Your task to perform on an android device: Open the stopwatch Image 0: 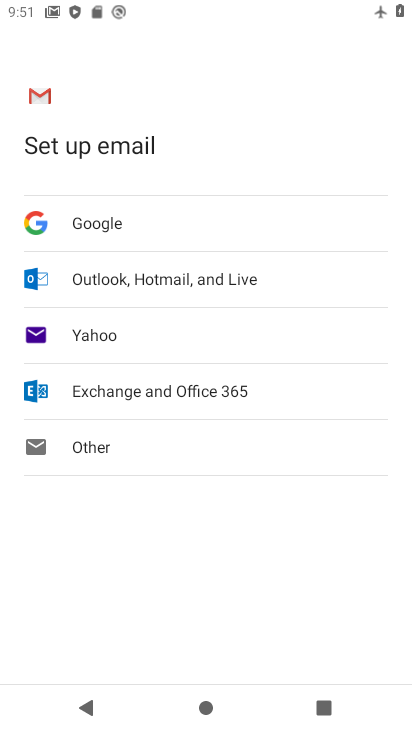
Step 0: press home button
Your task to perform on an android device: Open the stopwatch Image 1: 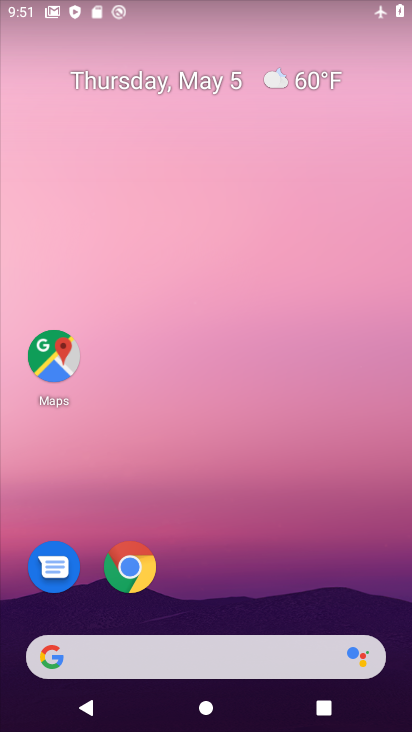
Step 1: drag from (358, 516) to (360, 149)
Your task to perform on an android device: Open the stopwatch Image 2: 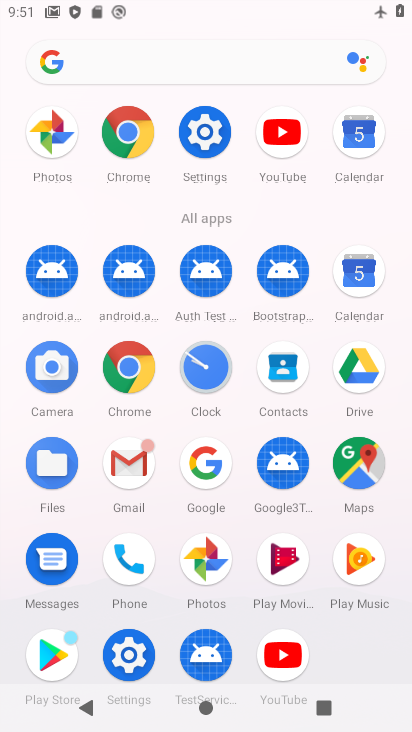
Step 2: click (218, 375)
Your task to perform on an android device: Open the stopwatch Image 3: 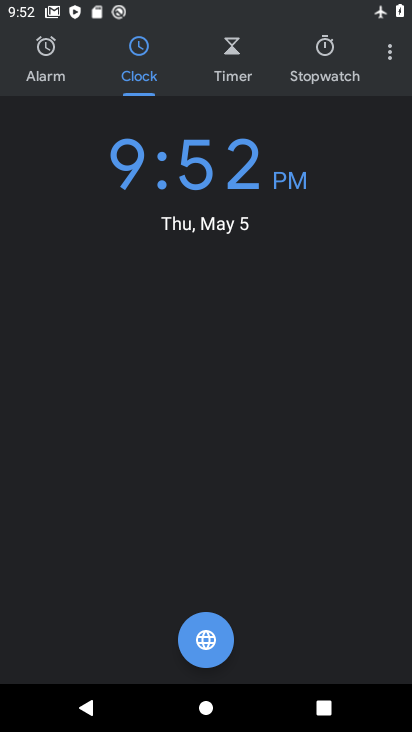
Step 3: click (342, 69)
Your task to perform on an android device: Open the stopwatch Image 4: 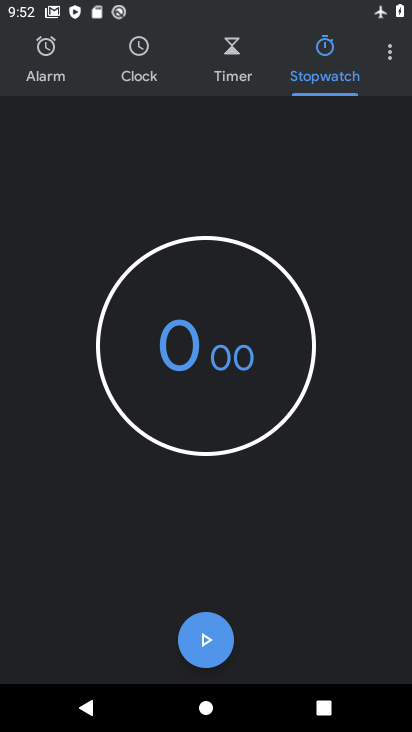
Step 4: click (210, 639)
Your task to perform on an android device: Open the stopwatch Image 5: 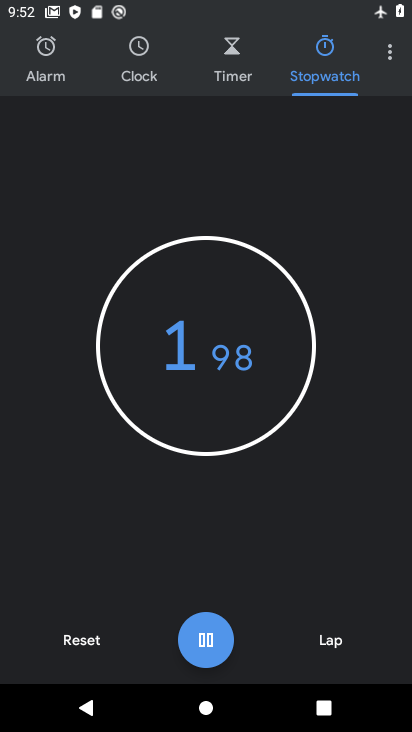
Step 5: task complete